Your task to perform on an android device: Open Youtube and go to "Your channel" Image 0: 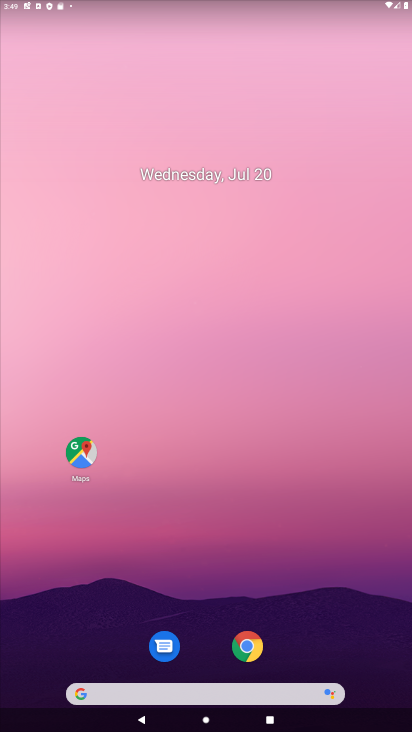
Step 0: drag from (162, 223) to (167, 82)
Your task to perform on an android device: Open Youtube and go to "Your channel" Image 1: 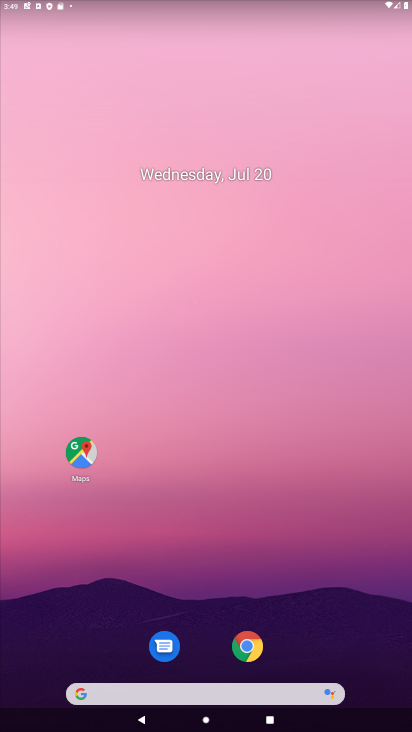
Step 1: drag from (206, 589) to (206, 193)
Your task to perform on an android device: Open Youtube and go to "Your channel" Image 2: 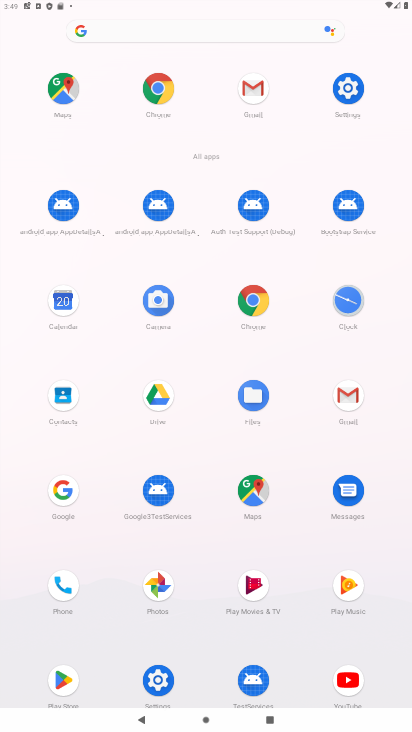
Step 2: click (347, 671)
Your task to perform on an android device: Open Youtube and go to "Your channel" Image 3: 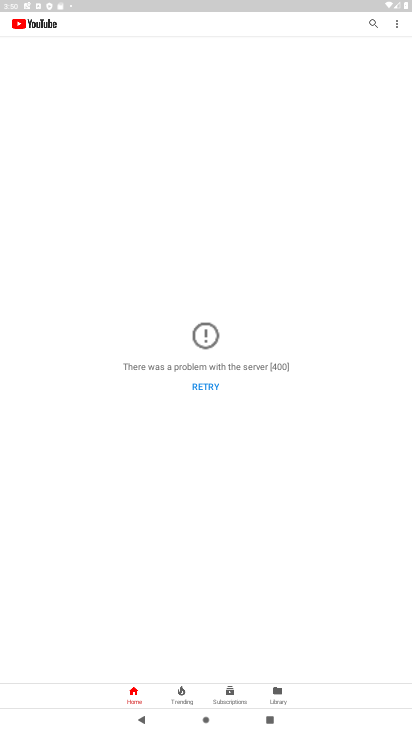
Step 3: click (399, 22)
Your task to perform on an android device: Open Youtube and go to "Your channel" Image 4: 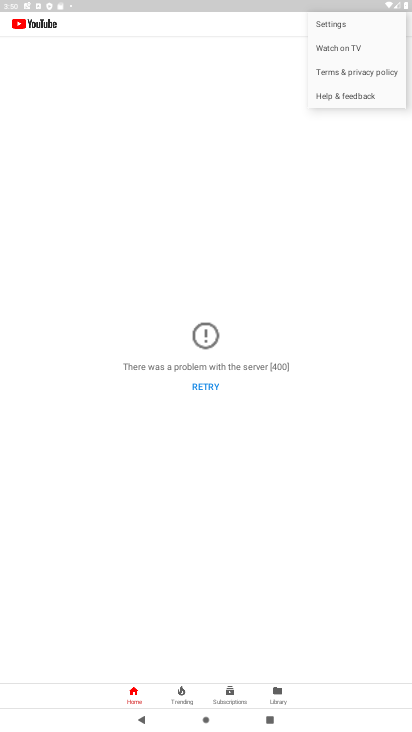
Step 4: task complete